Your task to perform on an android device: turn on bluetooth scan Image 0: 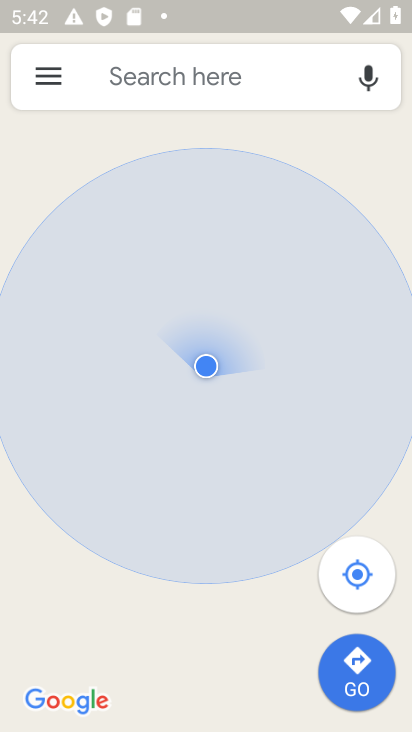
Step 0: press home button
Your task to perform on an android device: turn on bluetooth scan Image 1: 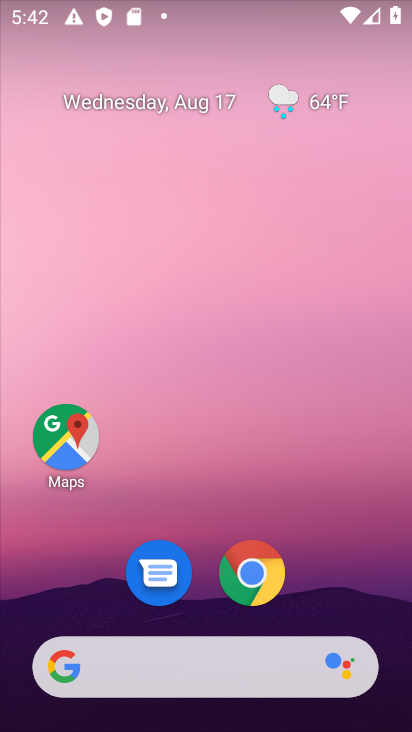
Step 1: drag from (341, 553) to (407, 613)
Your task to perform on an android device: turn on bluetooth scan Image 2: 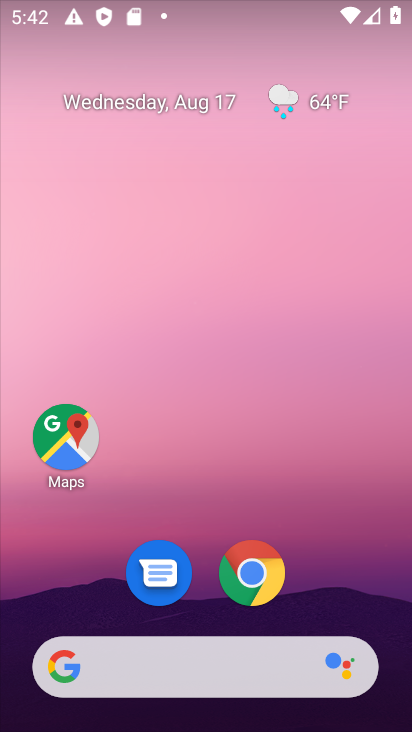
Step 2: drag from (338, 690) to (304, 16)
Your task to perform on an android device: turn on bluetooth scan Image 3: 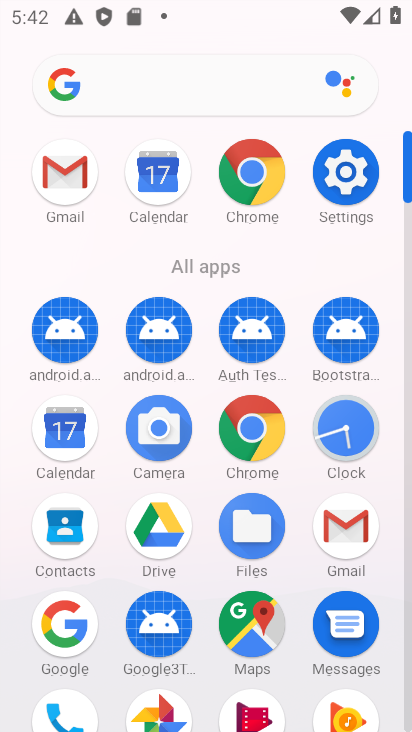
Step 3: click (350, 194)
Your task to perform on an android device: turn on bluetooth scan Image 4: 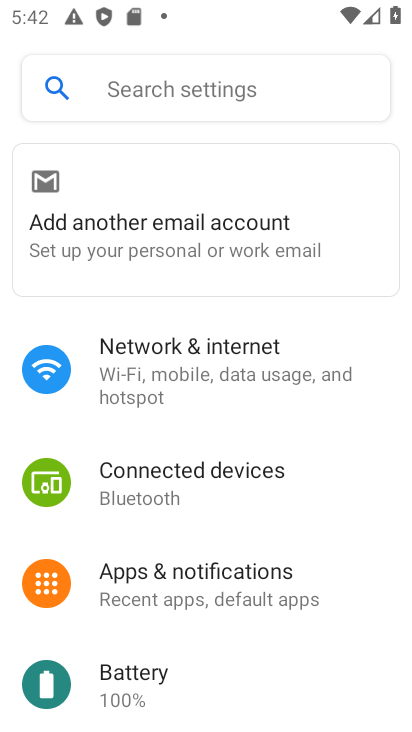
Step 4: click (361, 240)
Your task to perform on an android device: turn on bluetooth scan Image 5: 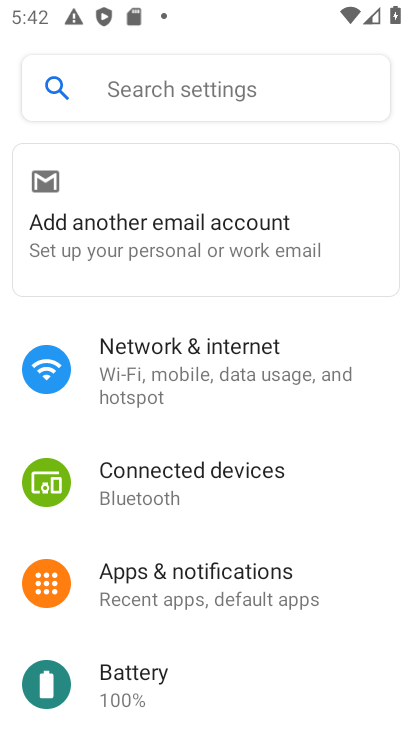
Step 5: drag from (186, 645) to (233, 329)
Your task to perform on an android device: turn on bluetooth scan Image 6: 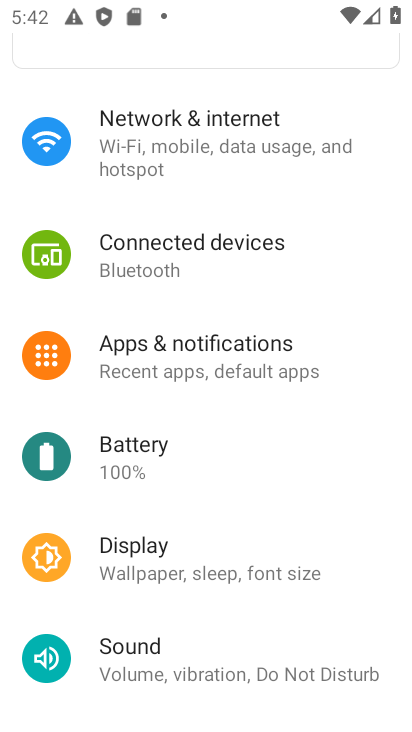
Step 6: drag from (189, 604) to (208, 242)
Your task to perform on an android device: turn on bluetooth scan Image 7: 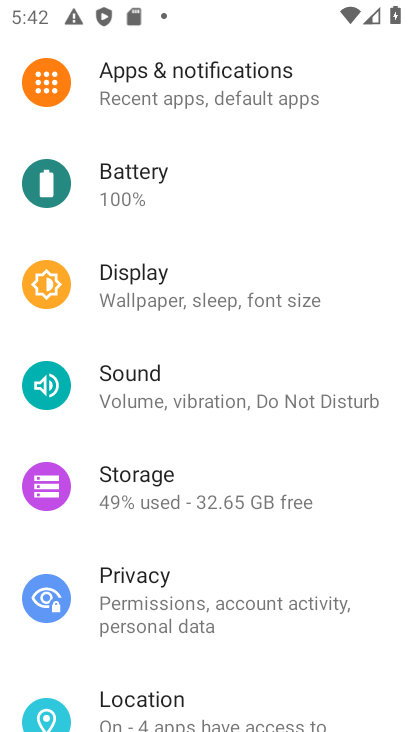
Step 7: drag from (183, 692) to (244, 247)
Your task to perform on an android device: turn on bluetooth scan Image 8: 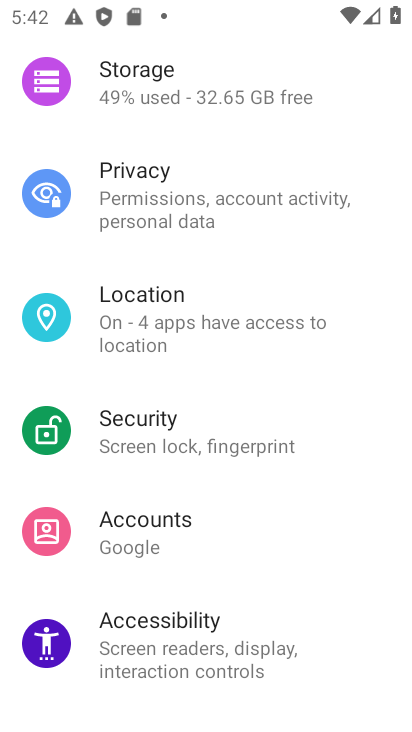
Step 8: click (155, 313)
Your task to perform on an android device: turn on bluetooth scan Image 9: 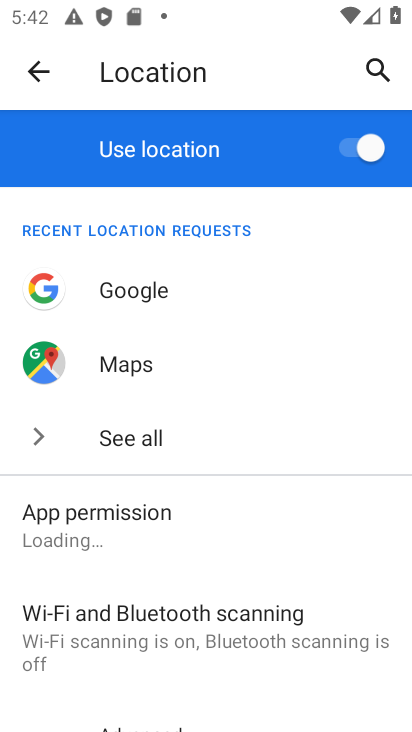
Step 9: click (130, 620)
Your task to perform on an android device: turn on bluetooth scan Image 10: 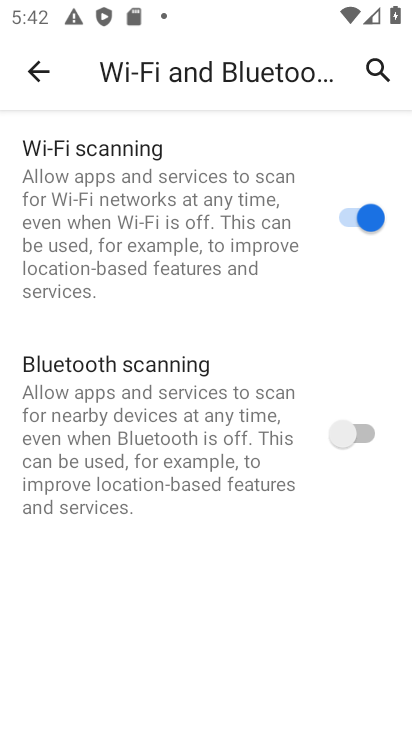
Step 10: click (363, 440)
Your task to perform on an android device: turn on bluetooth scan Image 11: 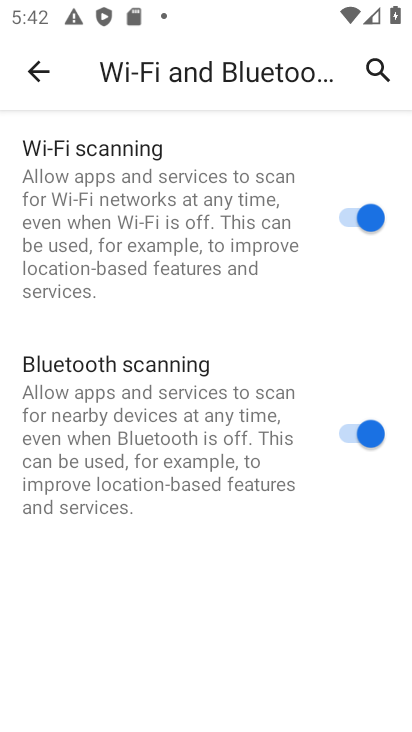
Step 11: task complete